Your task to perform on an android device: Open Google Maps and go to "Timeline" Image 0: 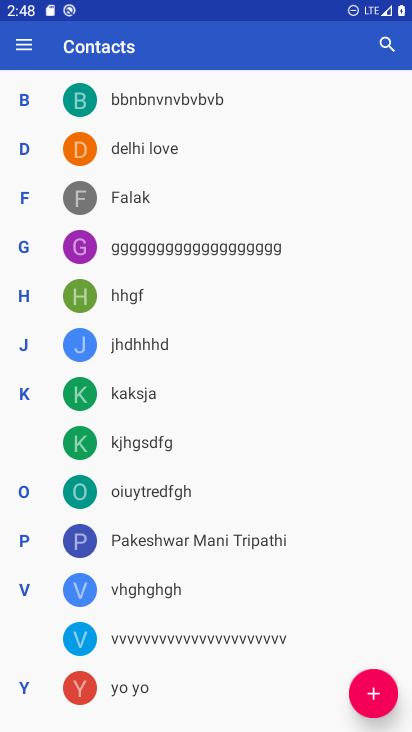
Step 0: press home button
Your task to perform on an android device: Open Google Maps and go to "Timeline" Image 1: 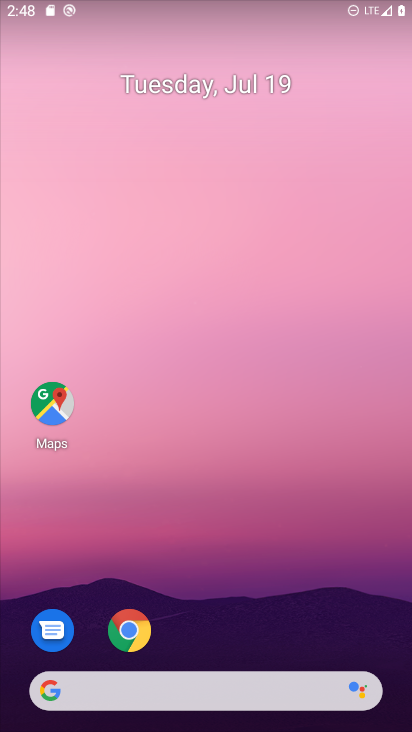
Step 1: click (54, 406)
Your task to perform on an android device: Open Google Maps and go to "Timeline" Image 2: 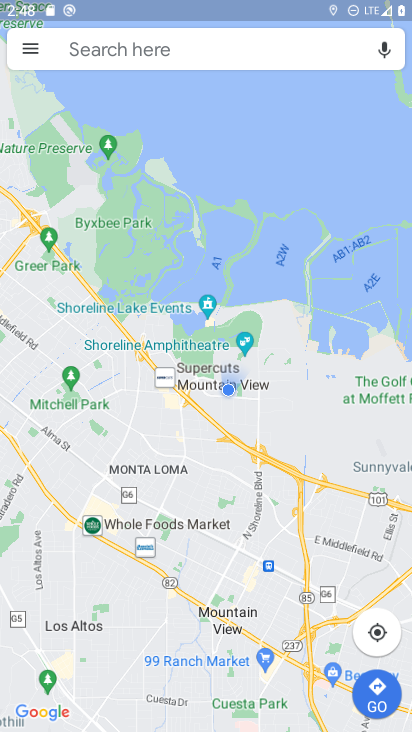
Step 2: click (25, 49)
Your task to perform on an android device: Open Google Maps and go to "Timeline" Image 3: 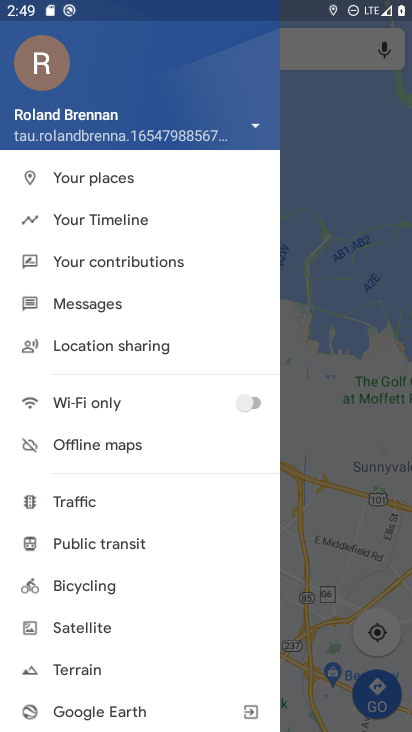
Step 3: click (92, 216)
Your task to perform on an android device: Open Google Maps and go to "Timeline" Image 4: 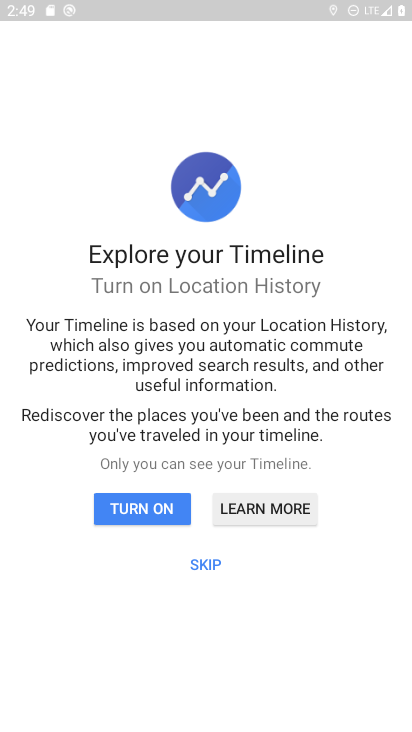
Step 4: click (207, 566)
Your task to perform on an android device: Open Google Maps and go to "Timeline" Image 5: 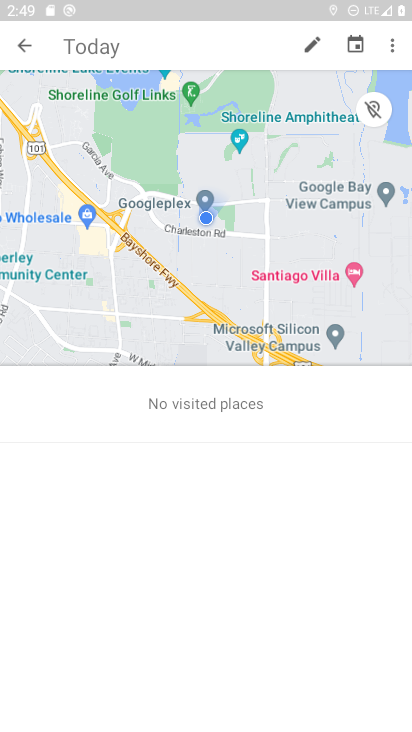
Step 5: task complete